Your task to perform on an android device: open wifi settings Image 0: 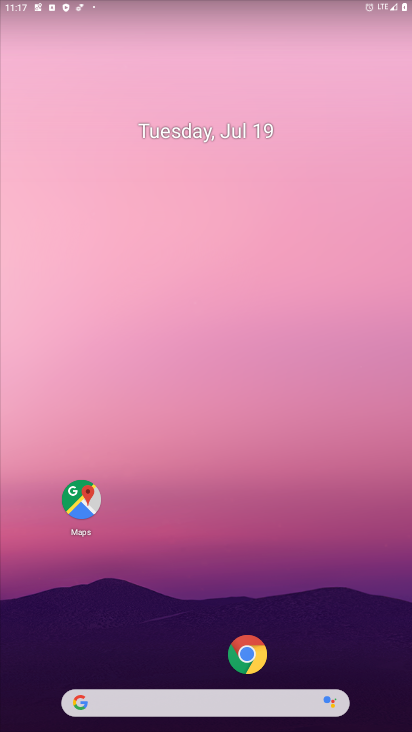
Step 0: drag from (263, 8) to (255, 597)
Your task to perform on an android device: open wifi settings Image 1: 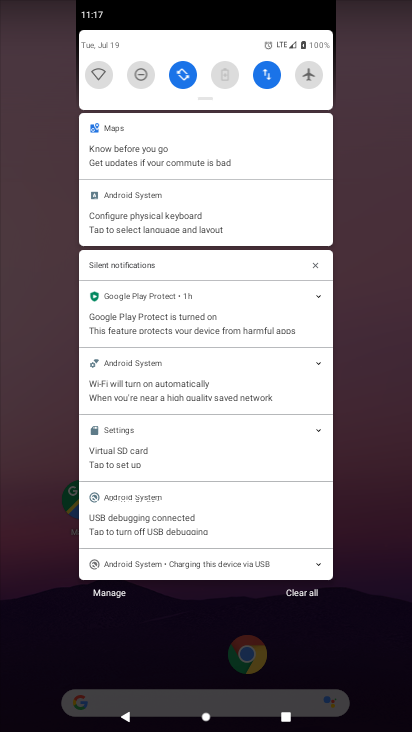
Step 1: click (102, 81)
Your task to perform on an android device: open wifi settings Image 2: 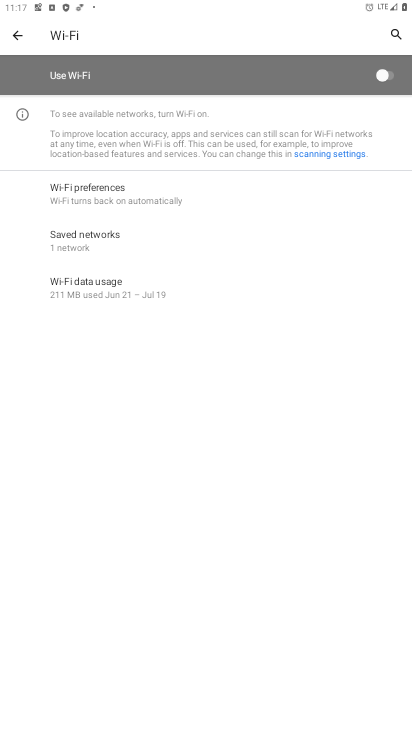
Step 2: task complete